Your task to perform on an android device: Open display settings Image 0: 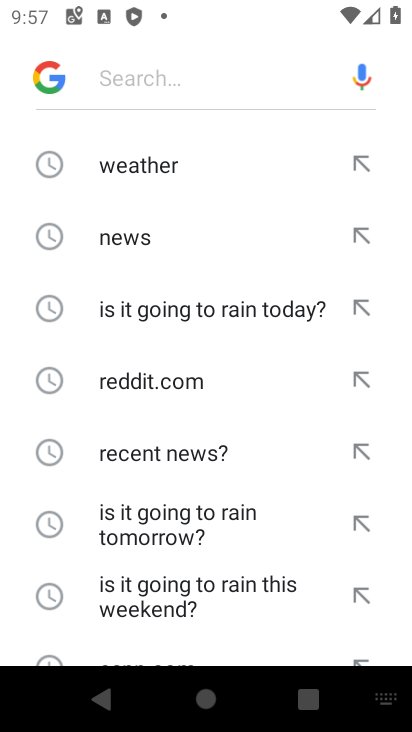
Step 0: press home button
Your task to perform on an android device: Open display settings Image 1: 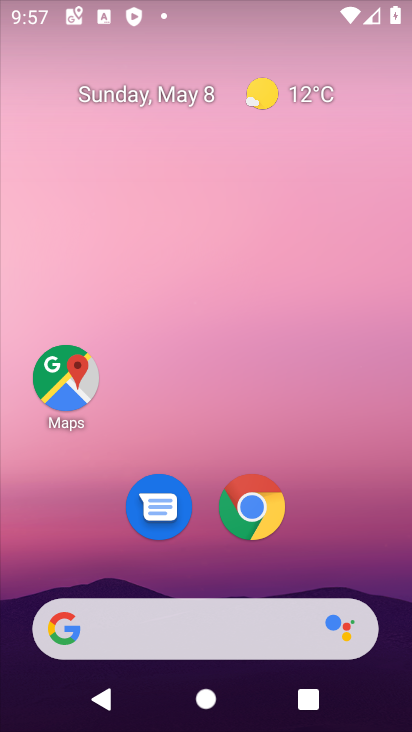
Step 1: drag from (269, 673) to (283, 112)
Your task to perform on an android device: Open display settings Image 2: 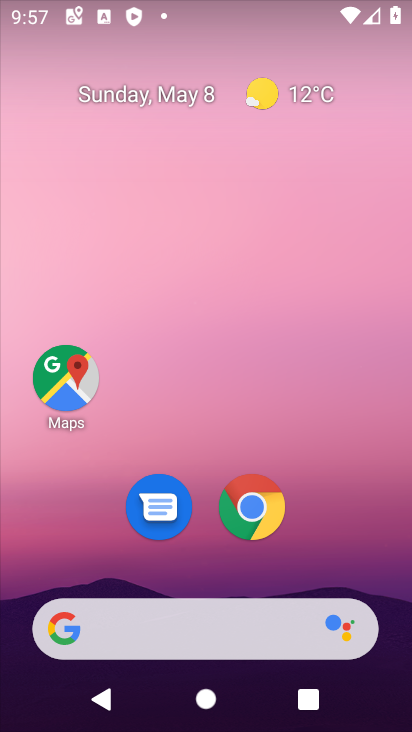
Step 2: drag from (249, 691) to (331, 37)
Your task to perform on an android device: Open display settings Image 3: 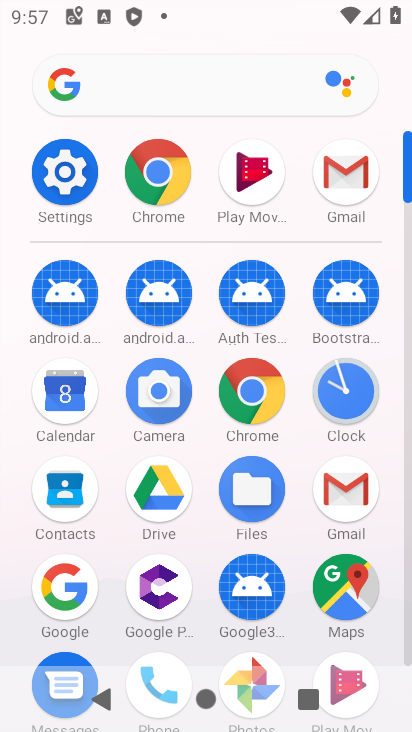
Step 3: click (64, 167)
Your task to perform on an android device: Open display settings Image 4: 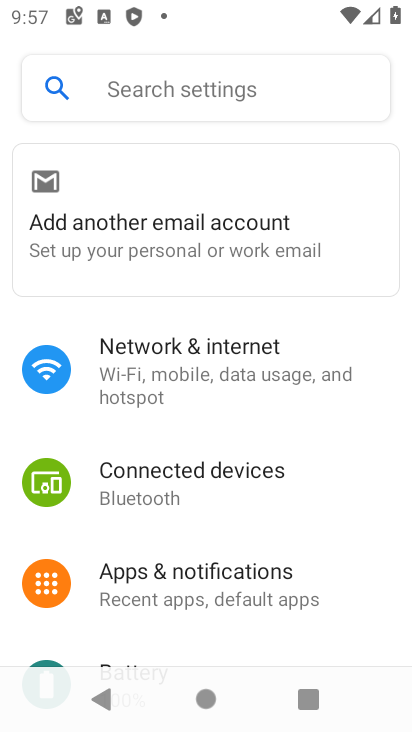
Step 4: drag from (259, 626) to (308, 0)
Your task to perform on an android device: Open display settings Image 5: 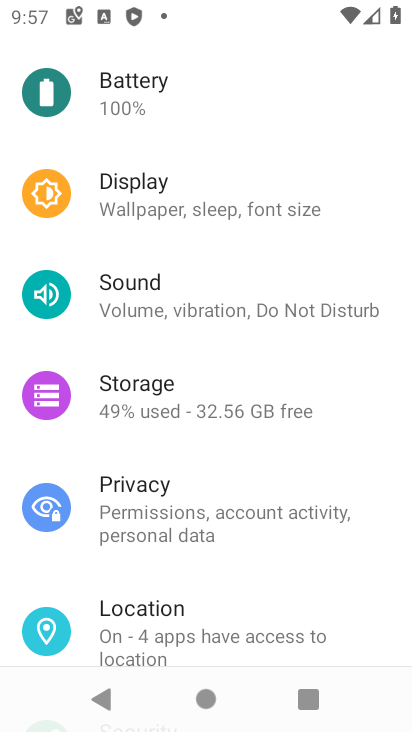
Step 5: click (178, 205)
Your task to perform on an android device: Open display settings Image 6: 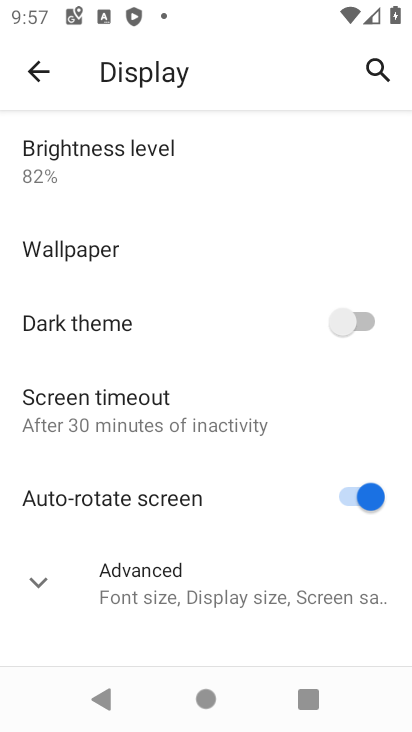
Step 6: task complete